Your task to perform on an android device: turn off location Image 0: 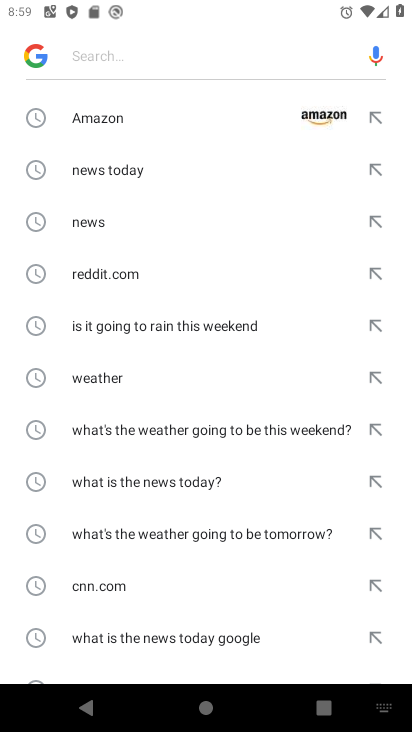
Step 0: press home button
Your task to perform on an android device: turn off location Image 1: 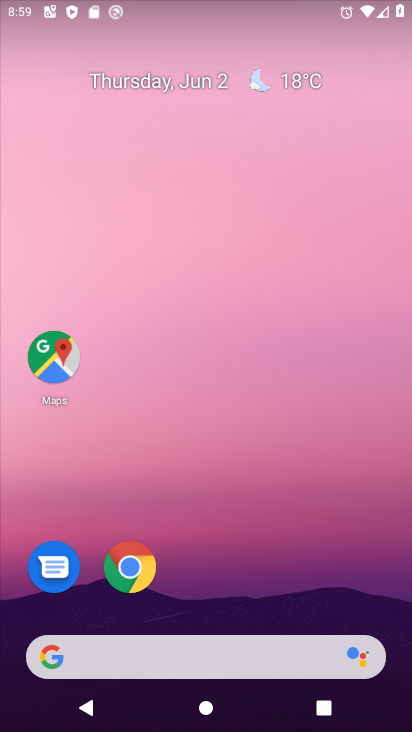
Step 1: drag from (217, 536) to (315, 35)
Your task to perform on an android device: turn off location Image 2: 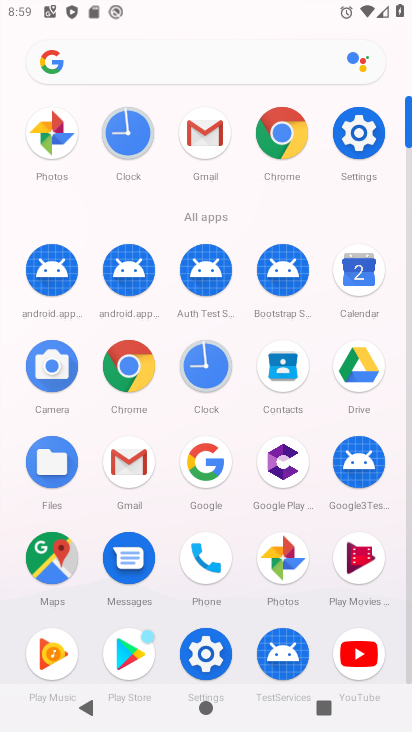
Step 2: click (368, 145)
Your task to perform on an android device: turn off location Image 3: 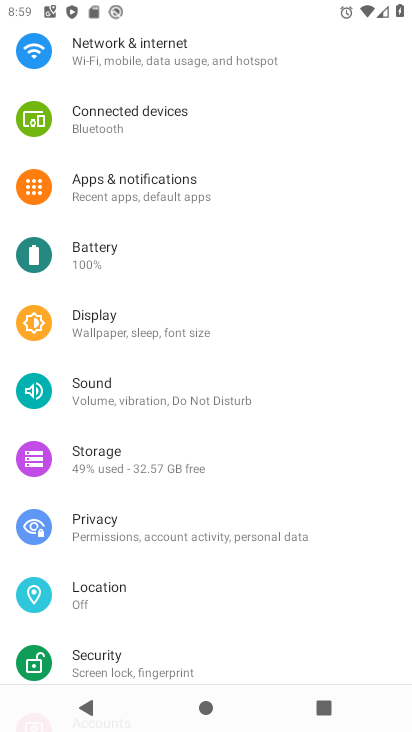
Step 3: click (101, 599)
Your task to perform on an android device: turn off location Image 4: 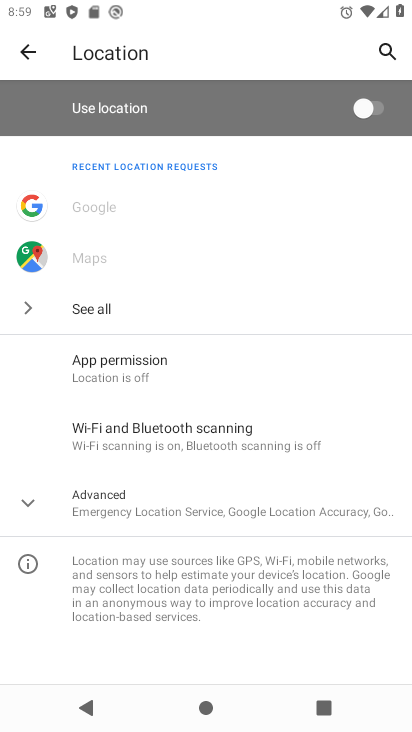
Step 4: task complete